Your task to perform on an android device: Open settings on Google Maps Image 0: 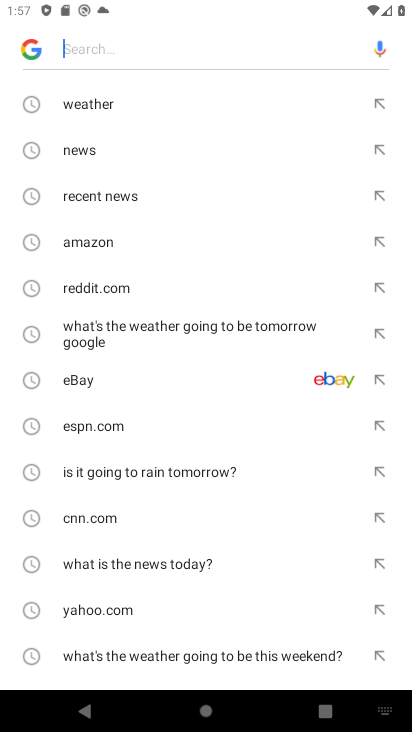
Step 0: press home button
Your task to perform on an android device: Open settings on Google Maps Image 1: 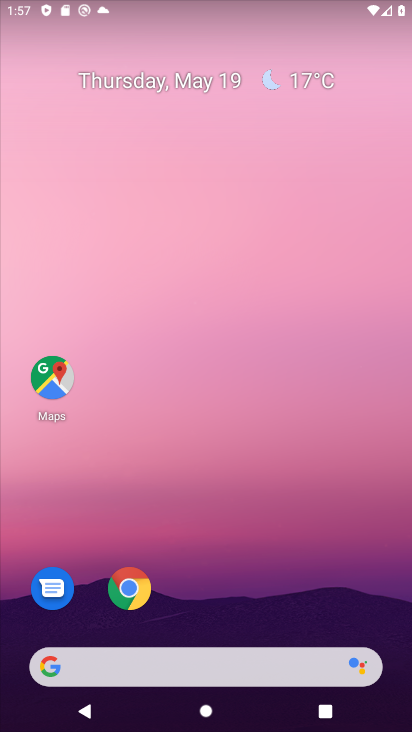
Step 1: click (61, 369)
Your task to perform on an android device: Open settings on Google Maps Image 2: 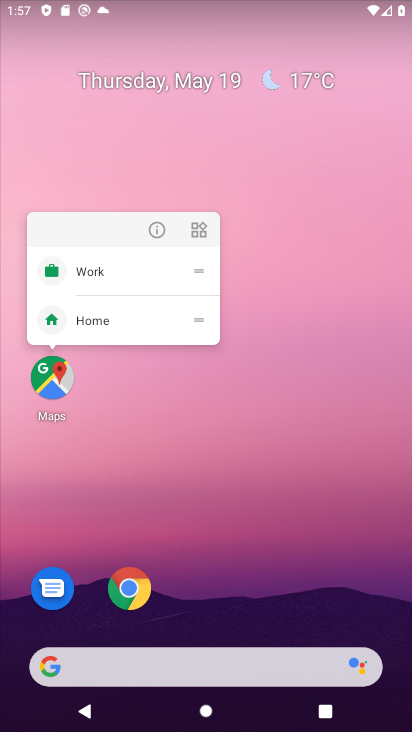
Step 2: click (58, 371)
Your task to perform on an android device: Open settings on Google Maps Image 3: 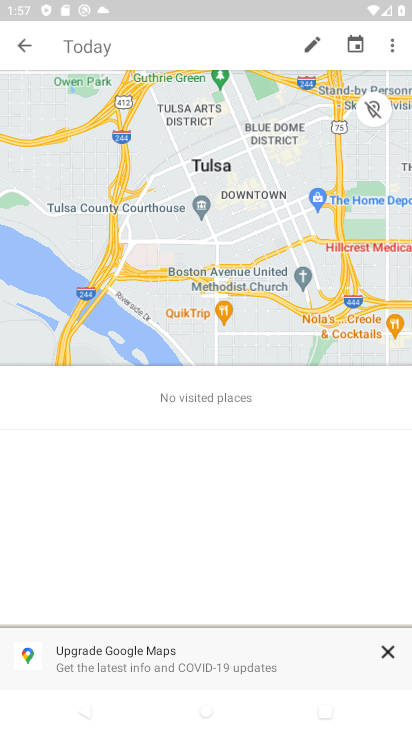
Step 3: click (24, 44)
Your task to perform on an android device: Open settings on Google Maps Image 4: 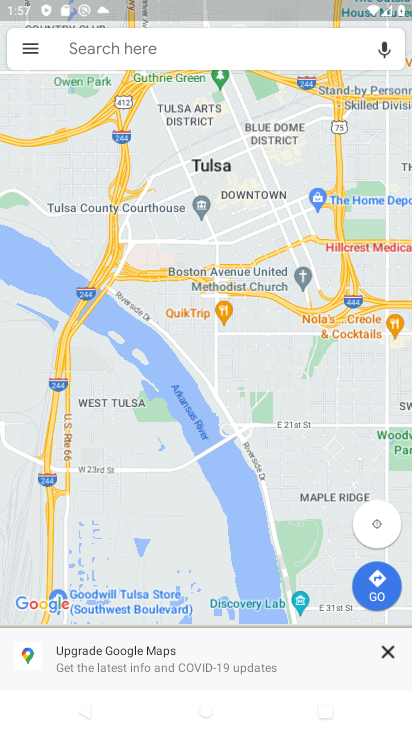
Step 4: click (23, 43)
Your task to perform on an android device: Open settings on Google Maps Image 5: 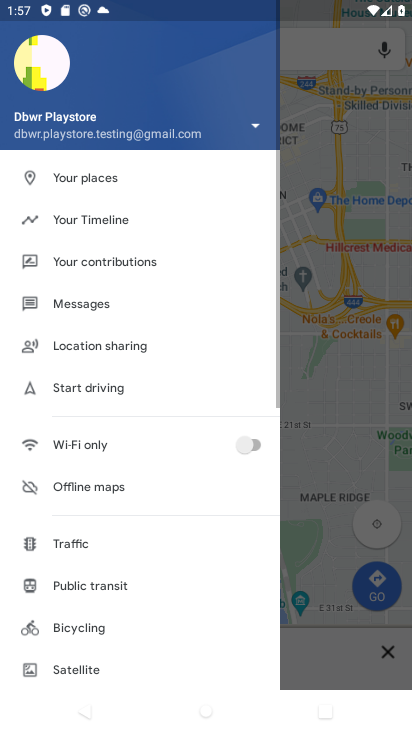
Step 5: drag from (92, 602) to (220, 59)
Your task to perform on an android device: Open settings on Google Maps Image 6: 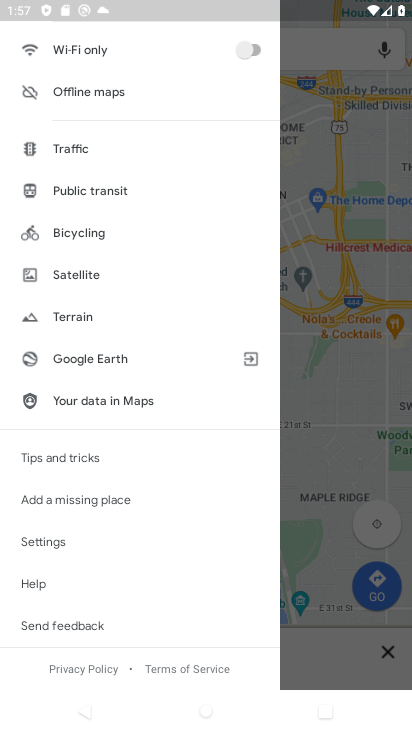
Step 6: click (58, 541)
Your task to perform on an android device: Open settings on Google Maps Image 7: 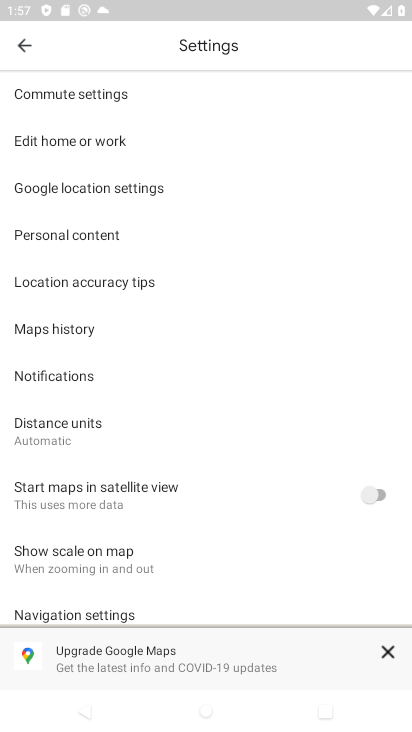
Step 7: task complete